Your task to perform on an android device: change the clock display to digital Image 0: 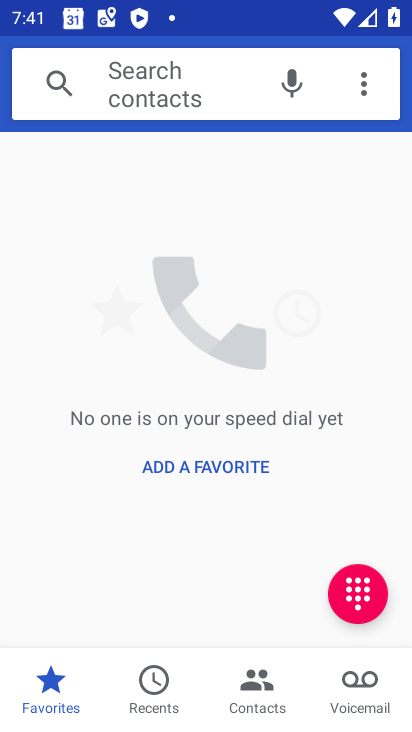
Step 0: press home button
Your task to perform on an android device: change the clock display to digital Image 1: 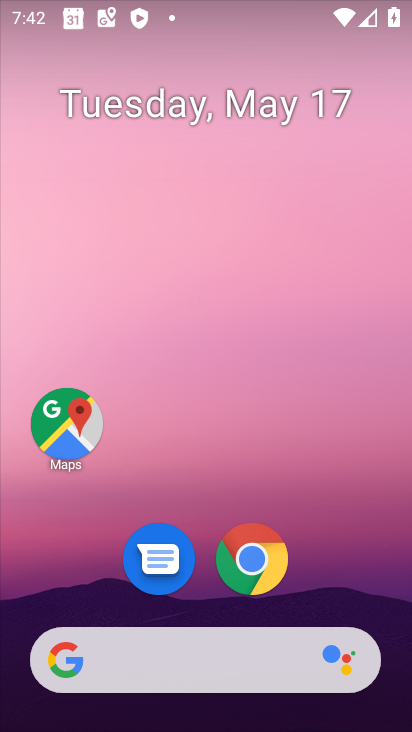
Step 1: drag from (227, 717) to (203, 99)
Your task to perform on an android device: change the clock display to digital Image 2: 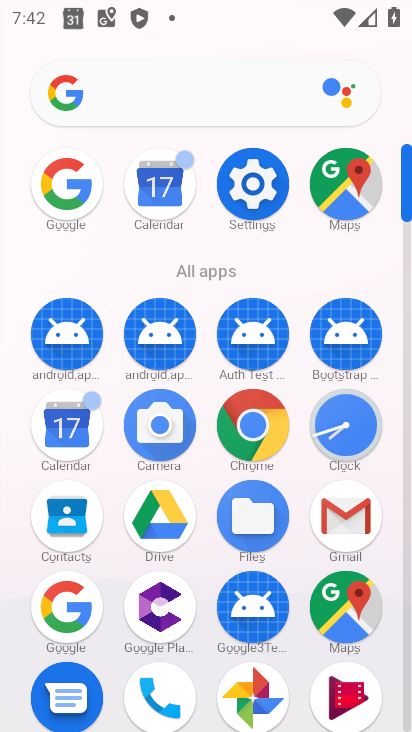
Step 2: click (353, 433)
Your task to perform on an android device: change the clock display to digital Image 3: 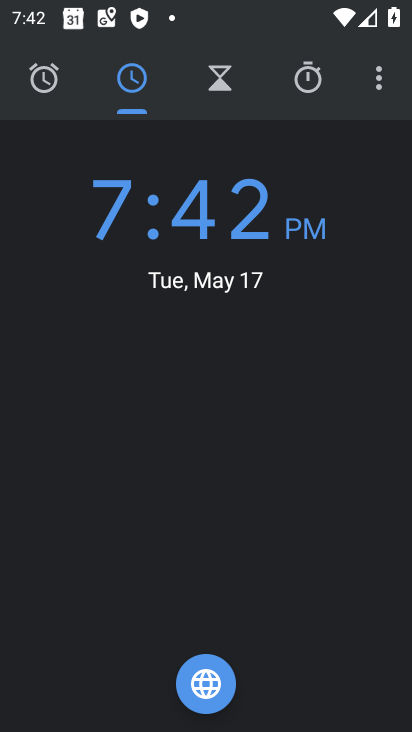
Step 3: click (384, 76)
Your task to perform on an android device: change the clock display to digital Image 4: 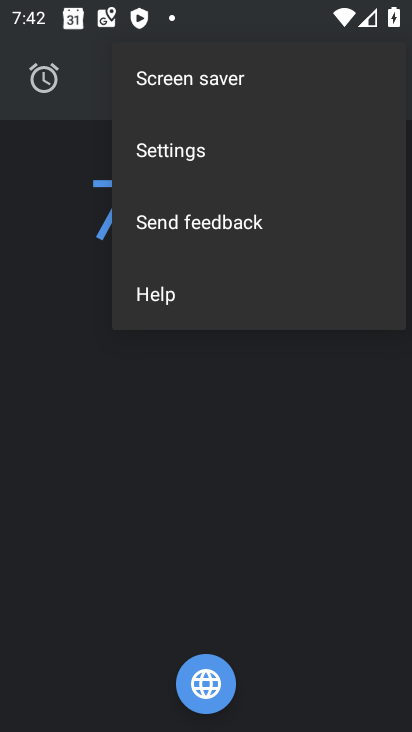
Step 4: click (172, 159)
Your task to perform on an android device: change the clock display to digital Image 5: 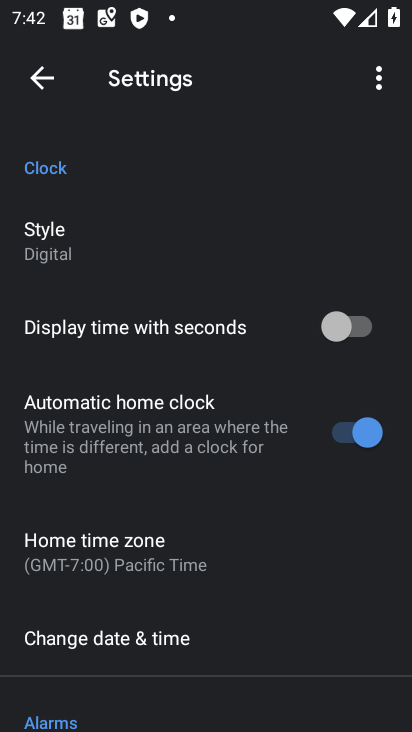
Step 5: click (108, 257)
Your task to perform on an android device: change the clock display to digital Image 6: 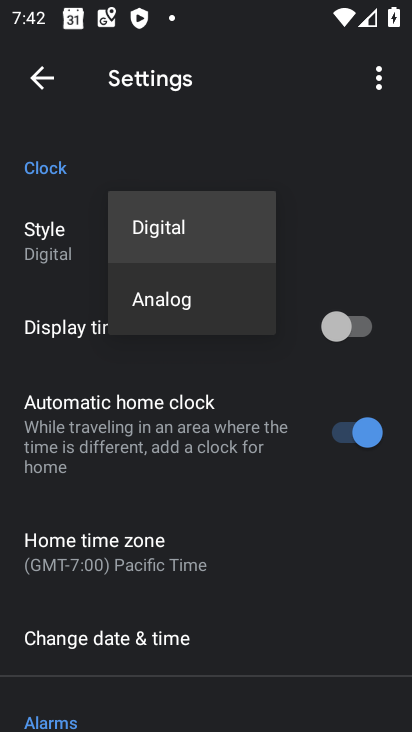
Step 6: task complete